Your task to perform on an android device: Open the Play Movies app and select the watchlist tab. Image 0: 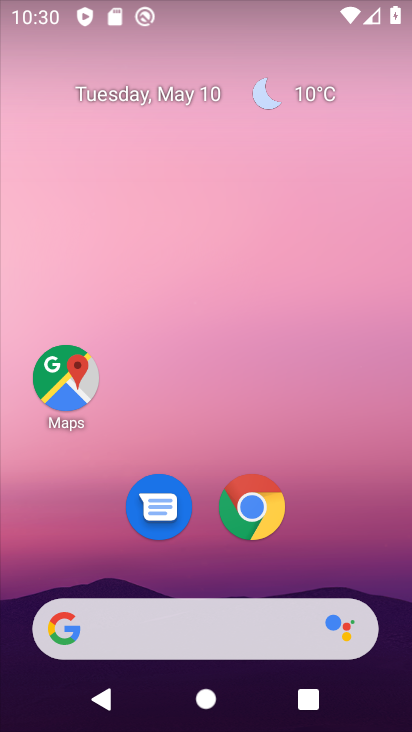
Step 0: drag from (225, 705) to (230, 176)
Your task to perform on an android device: Open the Play Movies app and select the watchlist tab. Image 1: 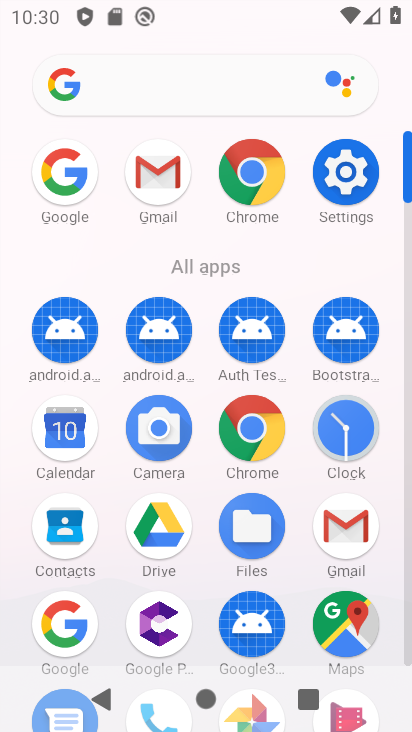
Step 1: drag from (206, 659) to (197, 366)
Your task to perform on an android device: Open the Play Movies app and select the watchlist tab. Image 2: 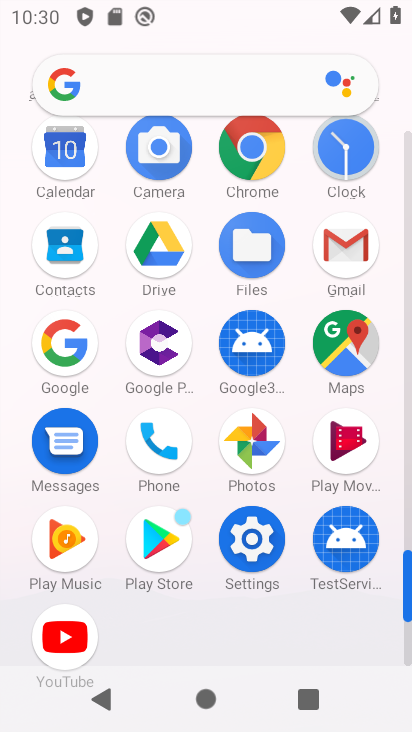
Step 2: click (350, 452)
Your task to perform on an android device: Open the Play Movies app and select the watchlist tab. Image 3: 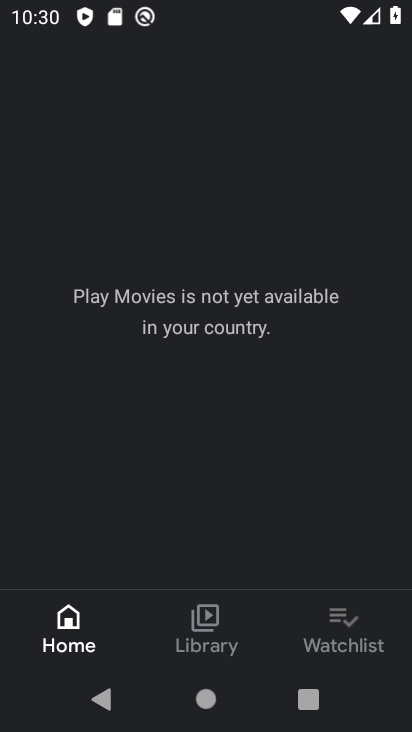
Step 3: click (335, 633)
Your task to perform on an android device: Open the Play Movies app and select the watchlist tab. Image 4: 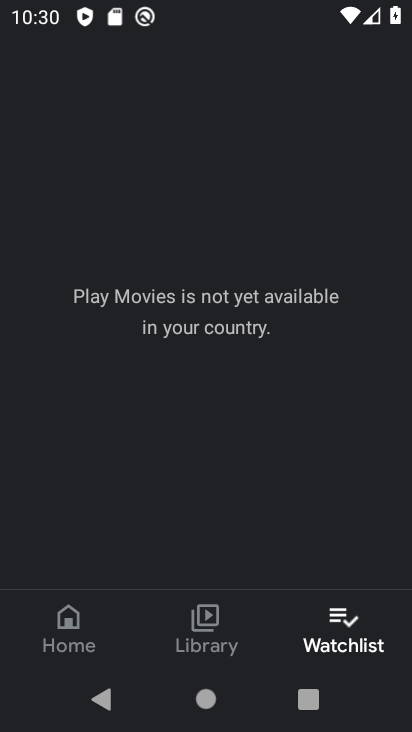
Step 4: task complete